Your task to perform on an android device: turn off smart reply in the gmail app Image 0: 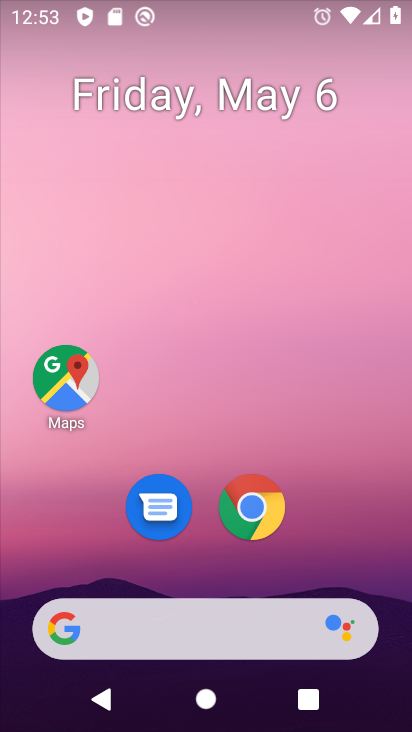
Step 0: drag from (81, 589) to (225, 75)
Your task to perform on an android device: turn off smart reply in the gmail app Image 1: 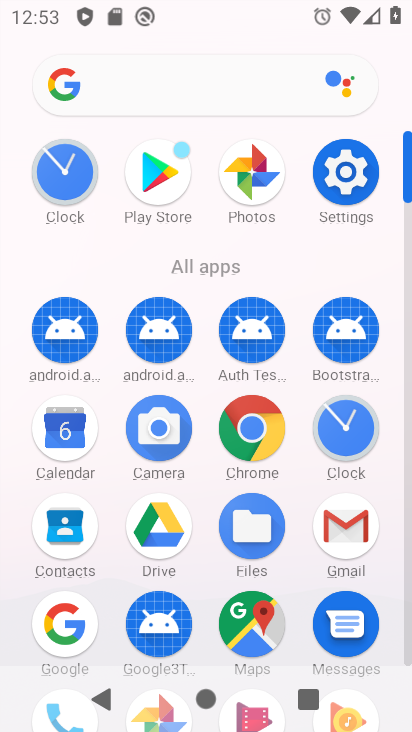
Step 1: click (343, 541)
Your task to perform on an android device: turn off smart reply in the gmail app Image 2: 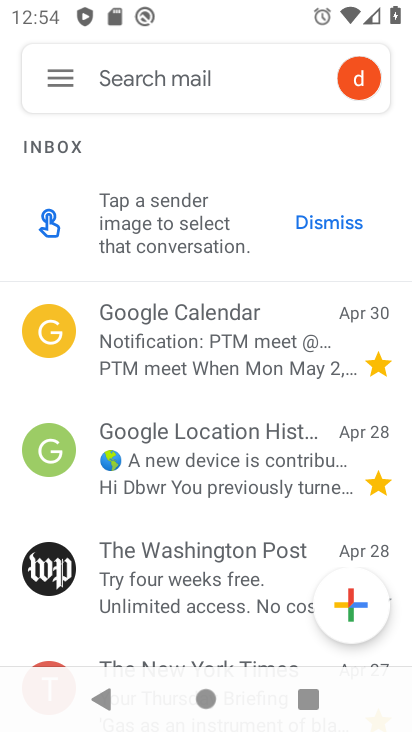
Step 2: click (59, 81)
Your task to perform on an android device: turn off smart reply in the gmail app Image 3: 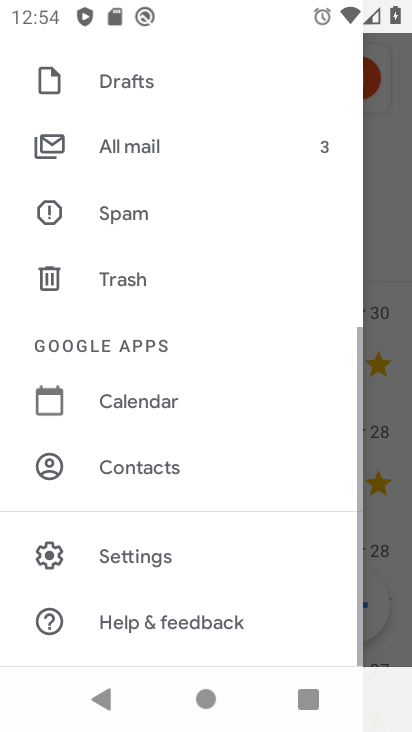
Step 3: drag from (101, 574) to (225, 162)
Your task to perform on an android device: turn off smart reply in the gmail app Image 4: 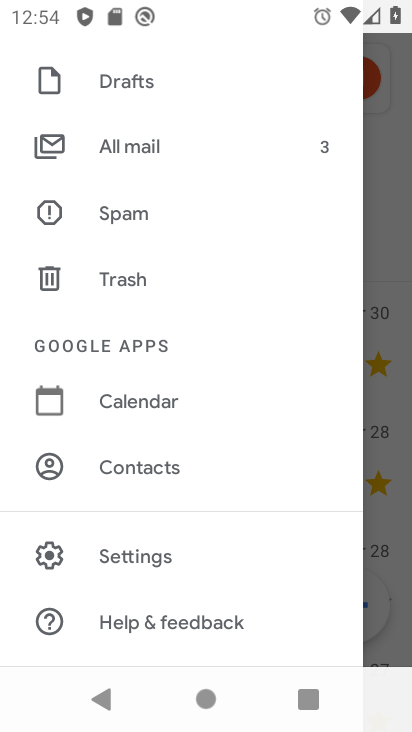
Step 4: click (125, 539)
Your task to perform on an android device: turn off smart reply in the gmail app Image 5: 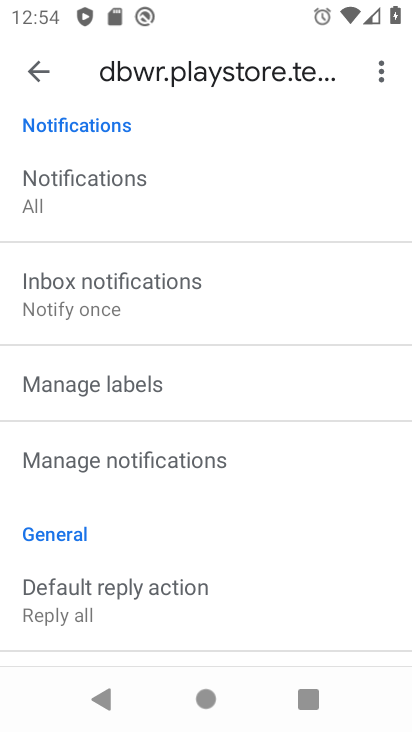
Step 5: drag from (108, 559) to (352, 120)
Your task to perform on an android device: turn off smart reply in the gmail app Image 6: 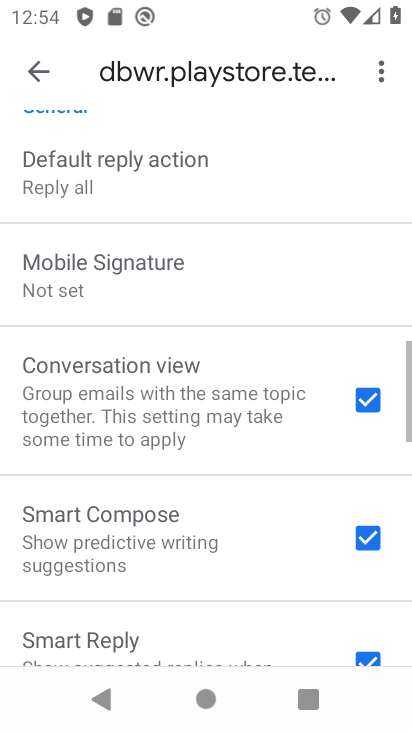
Step 6: drag from (171, 668) to (245, 290)
Your task to perform on an android device: turn off smart reply in the gmail app Image 7: 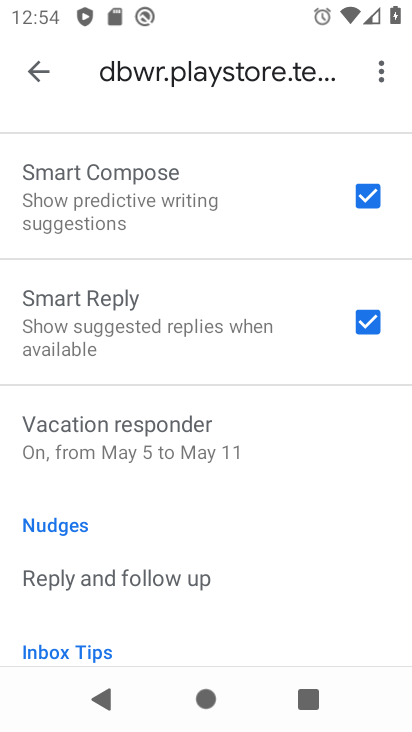
Step 7: click (372, 317)
Your task to perform on an android device: turn off smart reply in the gmail app Image 8: 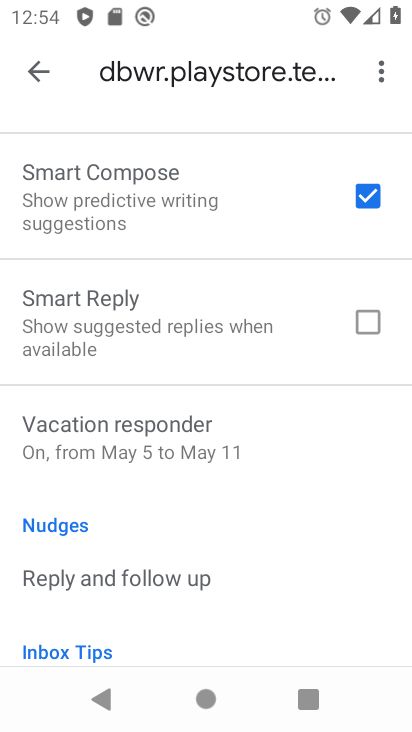
Step 8: task complete